Your task to perform on an android device: Open the map Image 0: 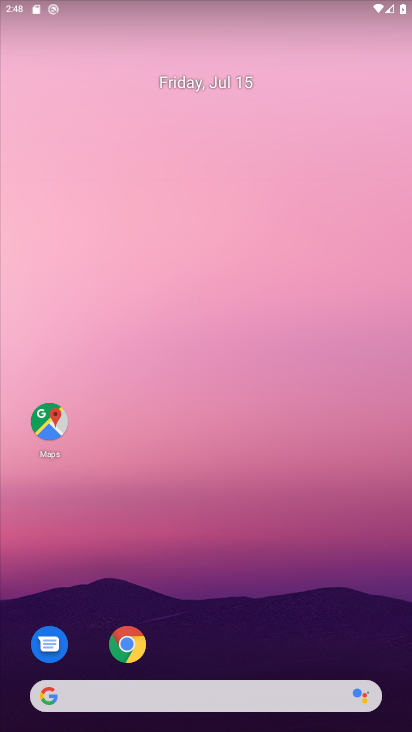
Step 0: click (46, 420)
Your task to perform on an android device: Open the map Image 1: 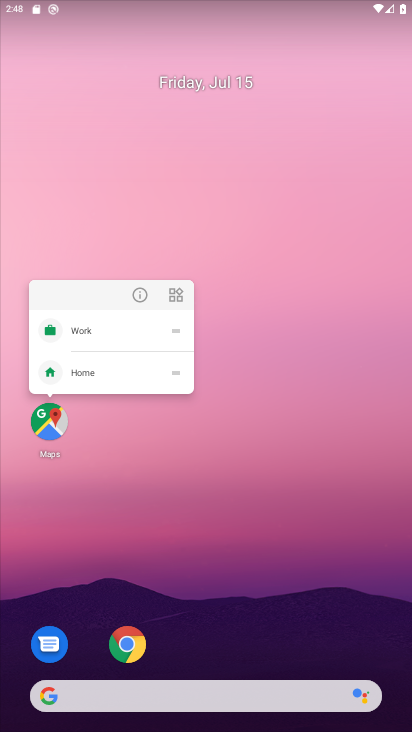
Step 1: click (41, 429)
Your task to perform on an android device: Open the map Image 2: 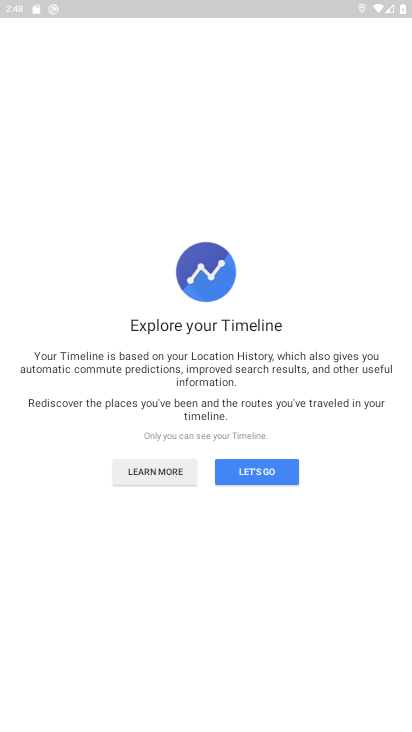
Step 2: task complete